Your task to perform on an android device: turn vacation reply on in the gmail app Image 0: 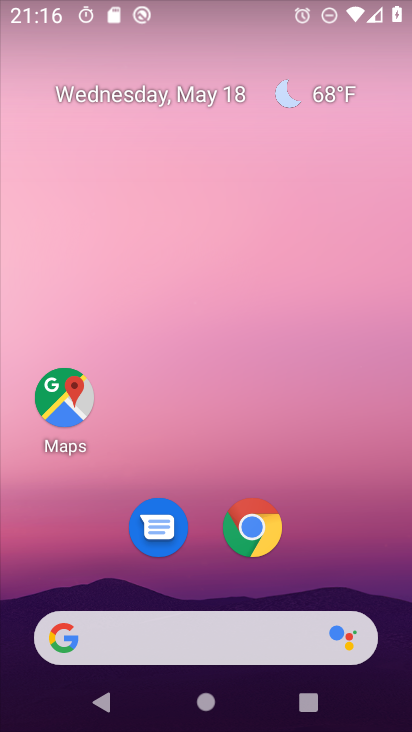
Step 0: drag from (391, 660) to (374, 297)
Your task to perform on an android device: turn vacation reply on in the gmail app Image 1: 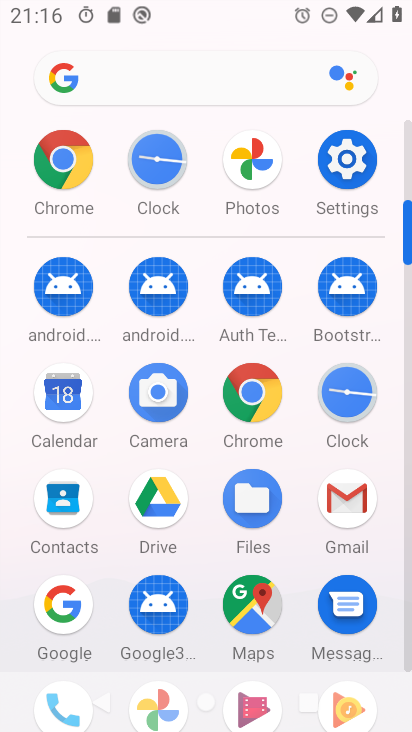
Step 1: click (351, 481)
Your task to perform on an android device: turn vacation reply on in the gmail app Image 2: 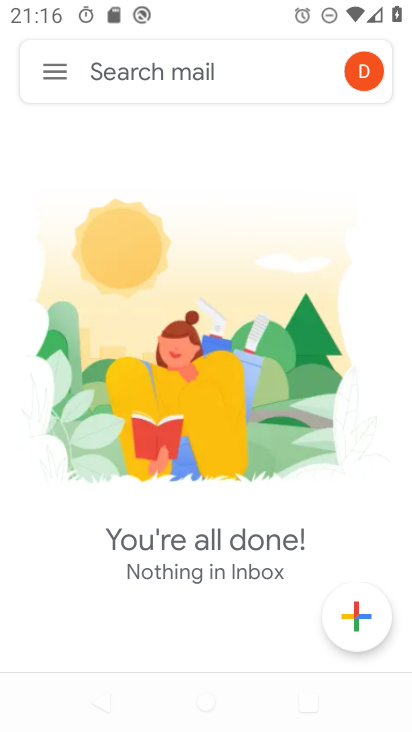
Step 2: click (53, 75)
Your task to perform on an android device: turn vacation reply on in the gmail app Image 3: 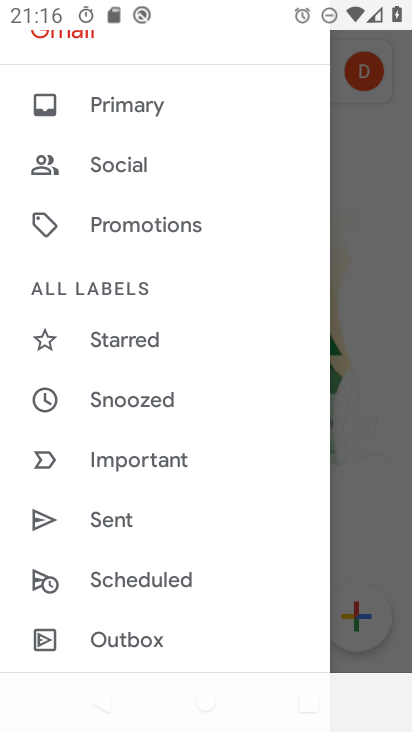
Step 3: drag from (233, 623) to (242, 361)
Your task to perform on an android device: turn vacation reply on in the gmail app Image 4: 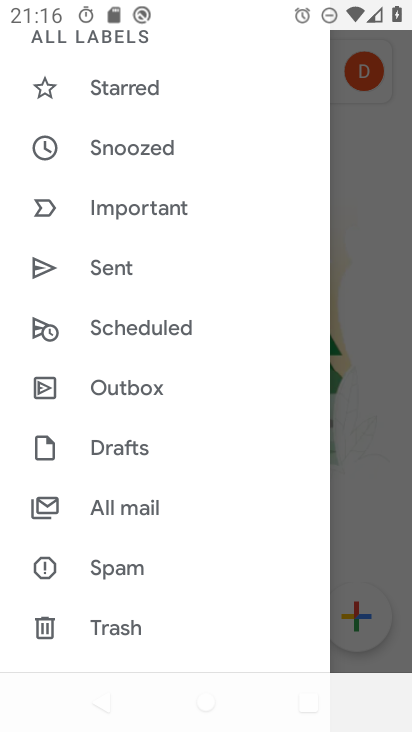
Step 4: drag from (218, 628) to (228, 382)
Your task to perform on an android device: turn vacation reply on in the gmail app Image 5: 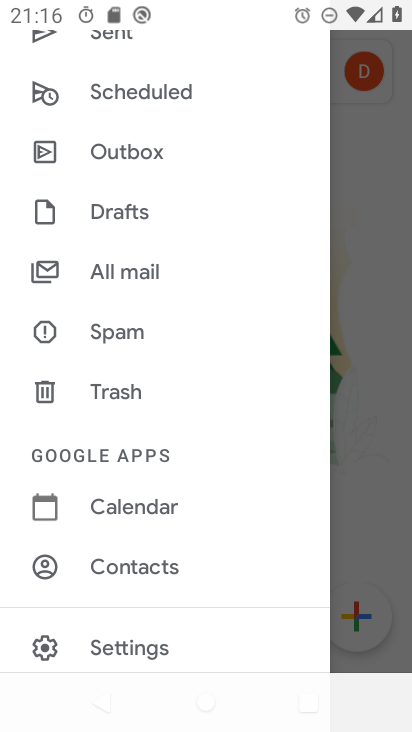
Step 5: click (118, 641)
Your task to perform on an android device: turn vacation reply on in the gmail app Image 6: 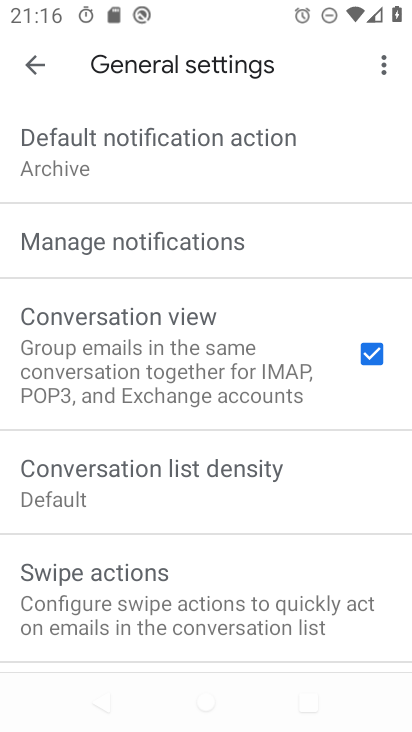
Step 6: drag from (266, 601) to (282, 252)
Your task to perform on an android device: turn vacation reply on in the gmail app Image 7: 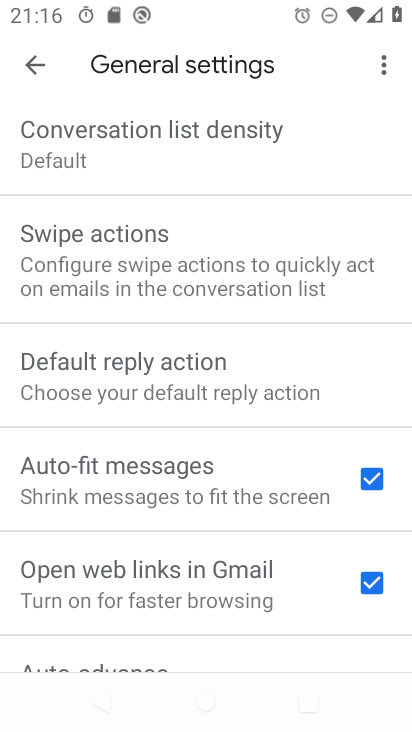
Step 7: drag from (138, 627) to (146, 367)
Your task to perform on an android device: turn vacation reply on in the gmail app Image 8: 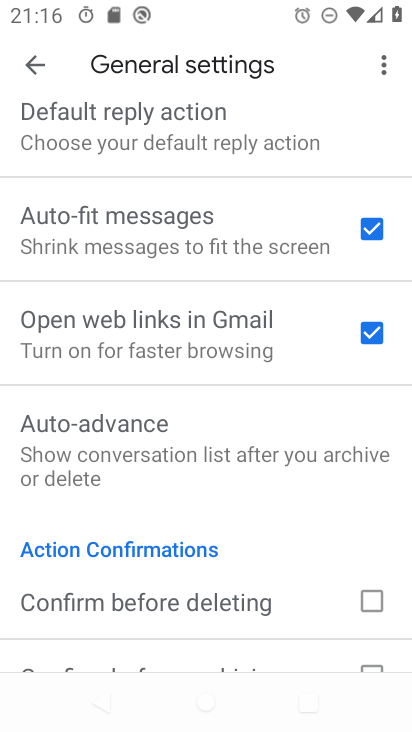
Step 8: click (27, 60)
Your task to perform on an android device: turn vacation reply on in the gmail app Image 9: 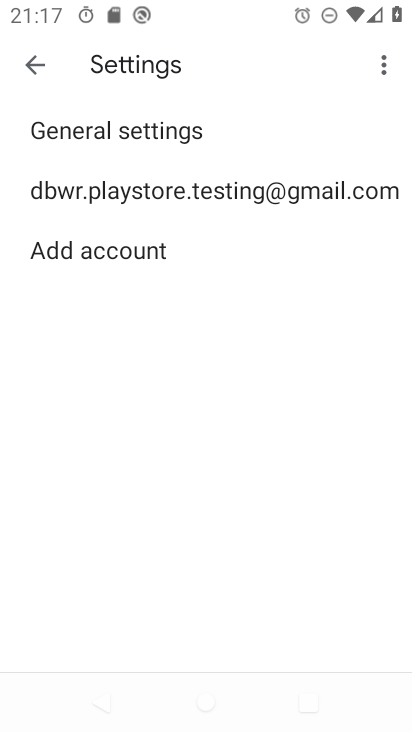
Step 9: click (74, 181)
Your task to perform on an android device: turn vacation reply on in the gmail app Image 10: 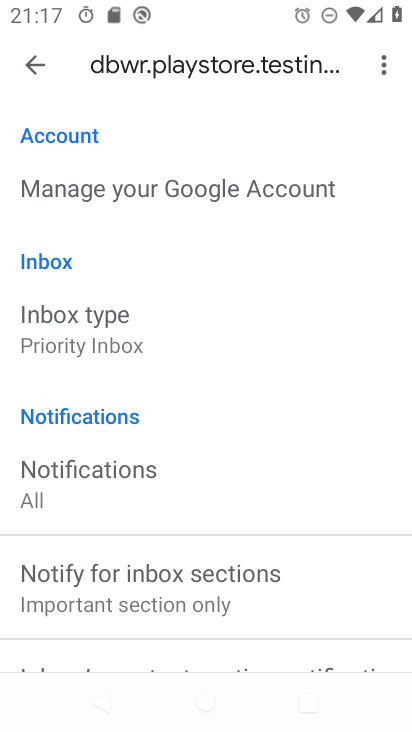
Step 10: drag from (218, 537) to (213, 324)
Your task to perform on an android device: turn vacation reply on in the gmail app Image 11: 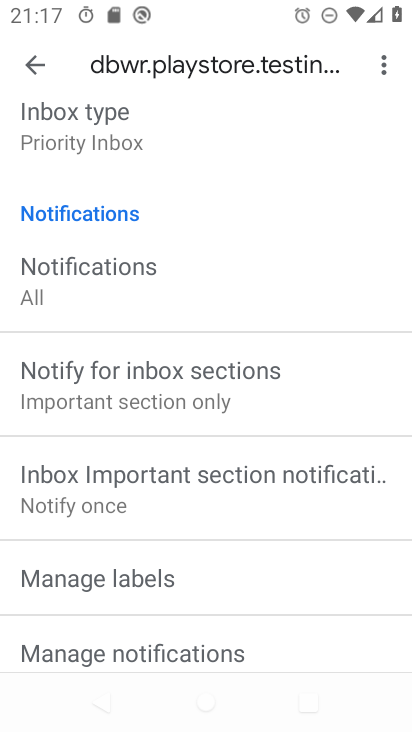
Step 11: drag from (221, 634) to (205, 288)
Your task to perform on an android device: turn vacation reply on in the gmail app Image 12: 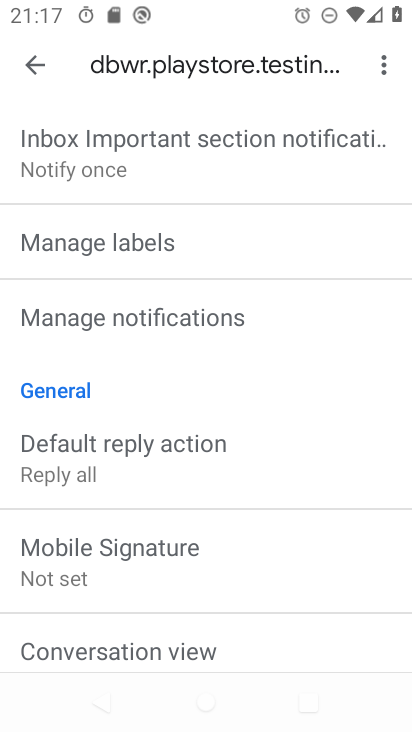
Step 12: drag from (263, 662) to (255, 392)
Your task to perform on an android device: turn vacation reply on in the gmail app Image 13: 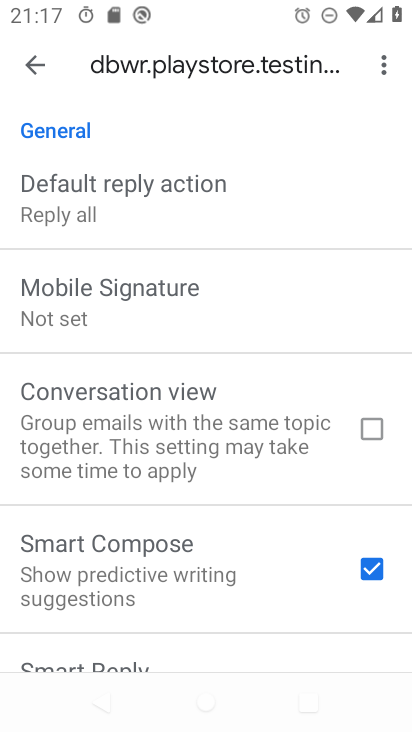
Step 13: drag from (229, 614) to (221, 394)
Your task to perform on an android device: turn vacation reply on in the gmail app Image 14: 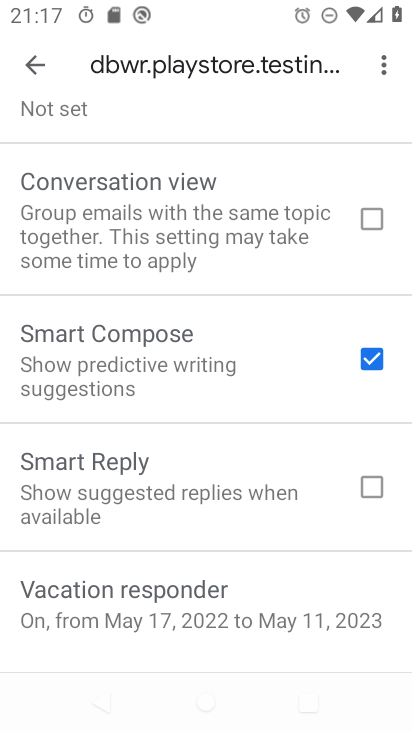
Step 14: click (375, 479)
Your task to perform on an android device: turn vacation reply on in the gmail app Image 15: 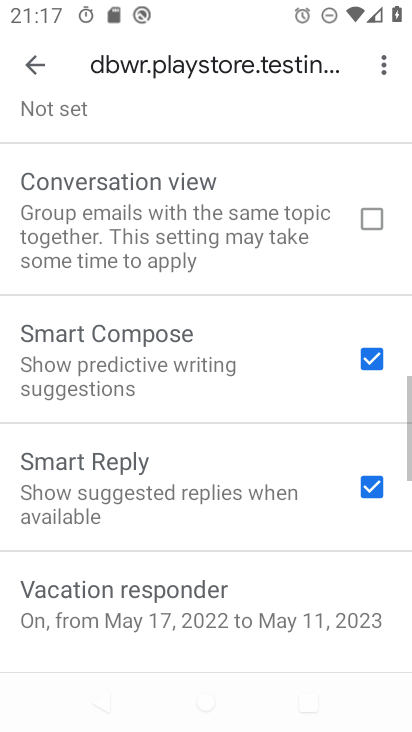
Step 15: task complete